Your task to perform on an android device: Open Maps and search for coffee Image 0: 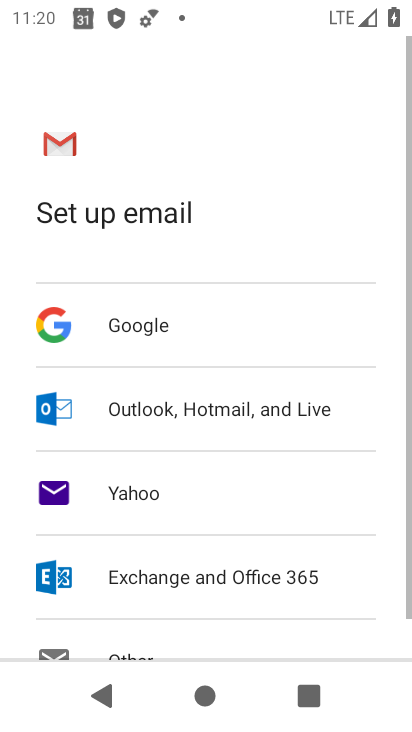
Step 0: press home button
Your task to perform on an android device: Open Maps and search for coffee Image 1: 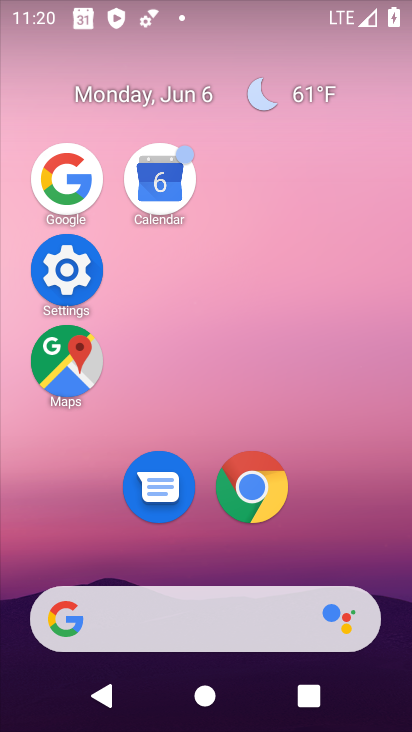
Step 1: click (78, 353)
Your task to perform on an android device: Open Maps and search for coffee Image 2: 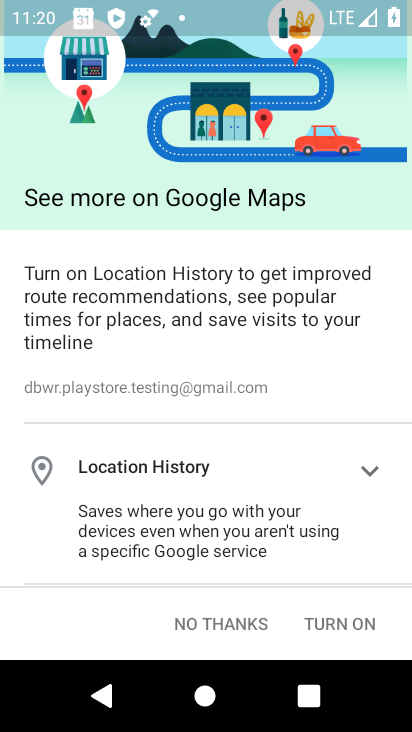
Step 2: click (340, 615)
Your task to perform on an android device: Open Maps and search for coffee Image 3: 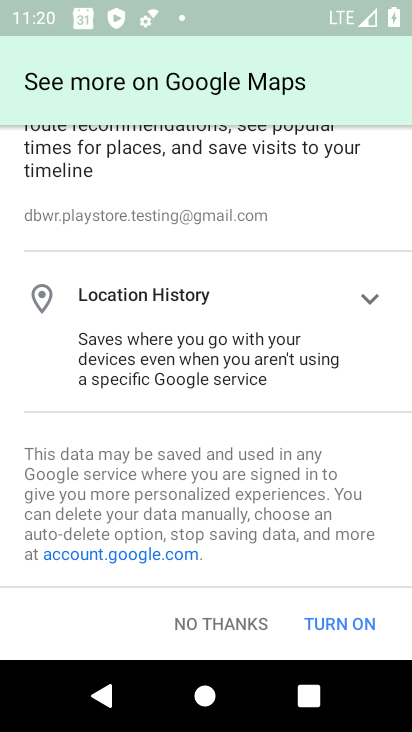
Step 3: click (337, 614)
Your task to perform on an android device: Open Maps and search for coffee Image 4: 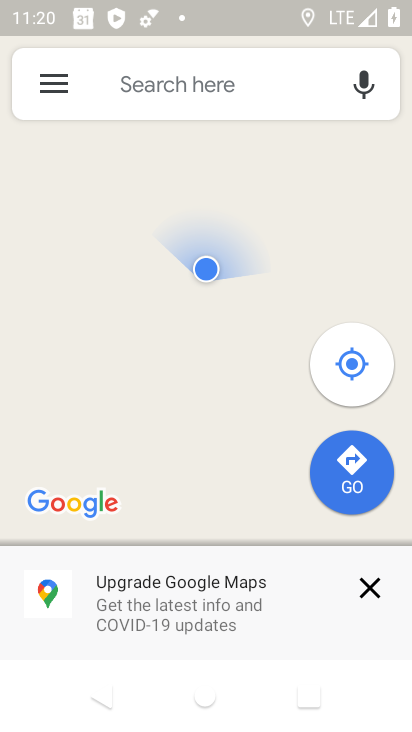
Step 4: click (185, 87)
Your task to perform on an android device: Open Maps and search for coffee Image 5: 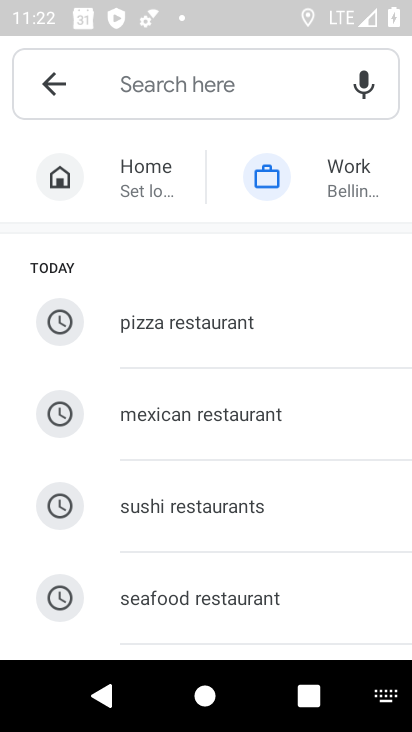
Step 5: drag from (276, 581) to (297, 213)
Your task to perform on an android device: Open Maps and search for coffee Image 6: 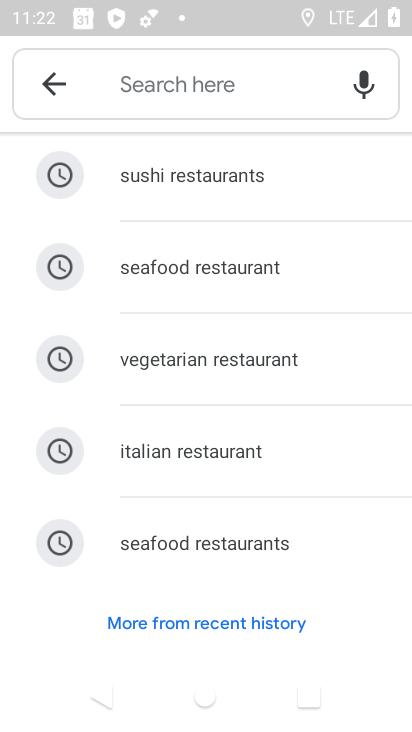
Step 6: drag from (274, 498) to (236, 220)
Your task to perform on an android device: Open Maps and search for coffee Image 7: 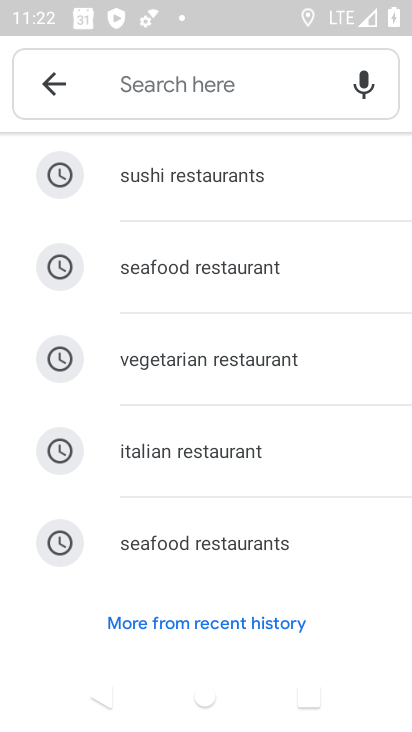
Step 7: click (180, 93)
Your task to perform on an android device: Open Maps and search for coffee Image 8: 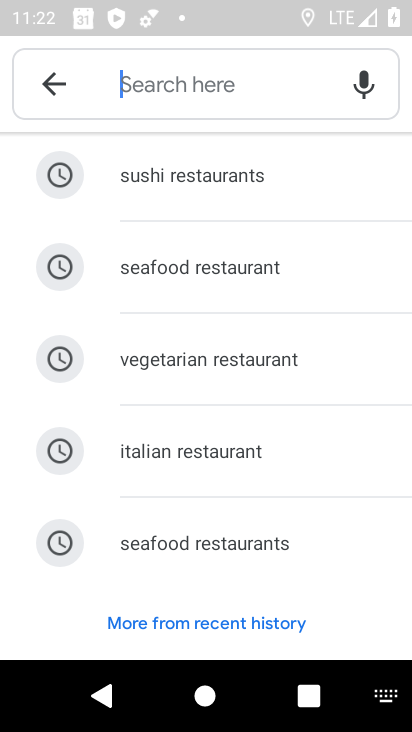
Step 8: type "coffee"
Your task to perform on an android device: Open Maps and search for coffee Image 9: 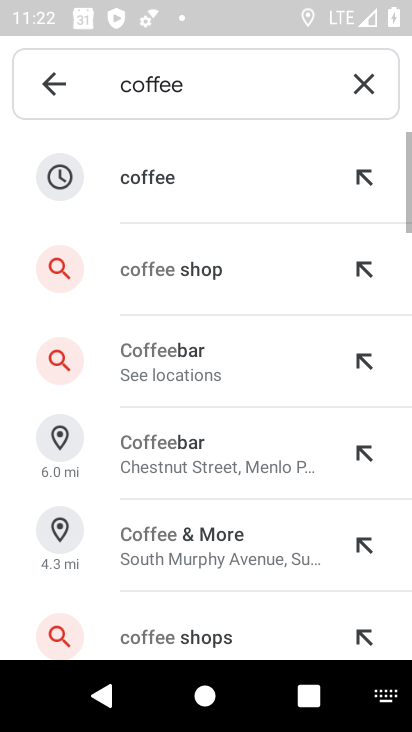
Step 9: task complete